Your task to perform on an android device: Go to Reddit.com Image 0: 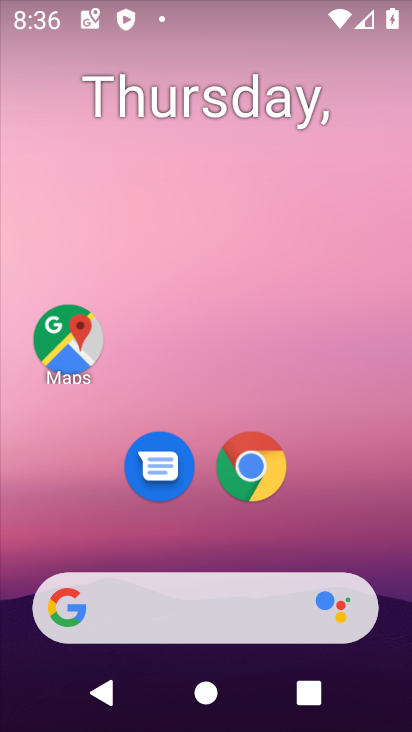
Step 0: click (261, 608)
Your task to perform on an android device: Go to Reddit.com Image 1: 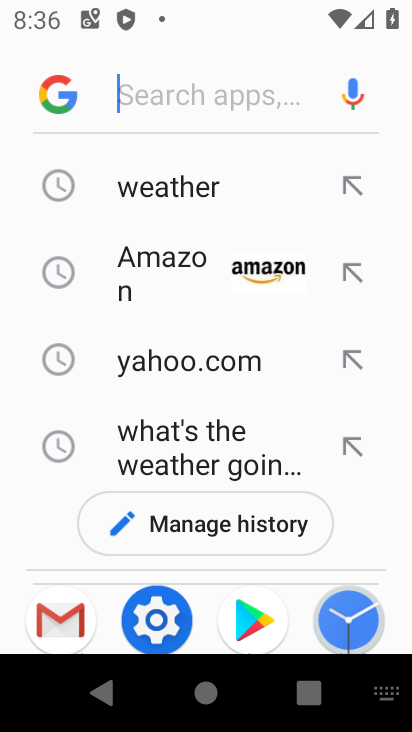
Step 1: type " Reddit.com"
Your task to perform on an android device: Go to Reddit.com Image 2: 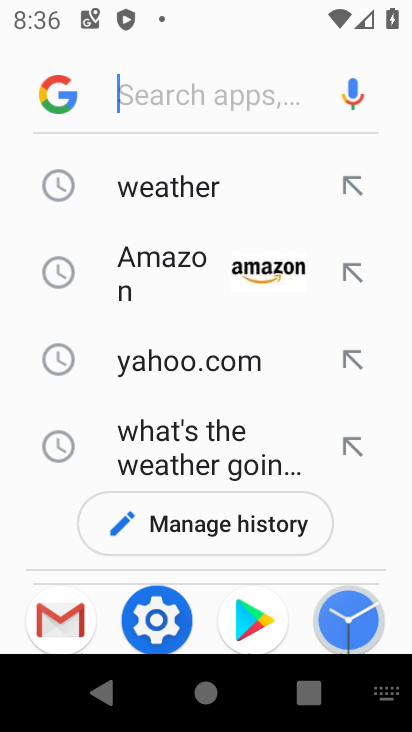
Step 2: click (218, 99)
Your task to perform on an android device: Go to Reddit.com Image 3: 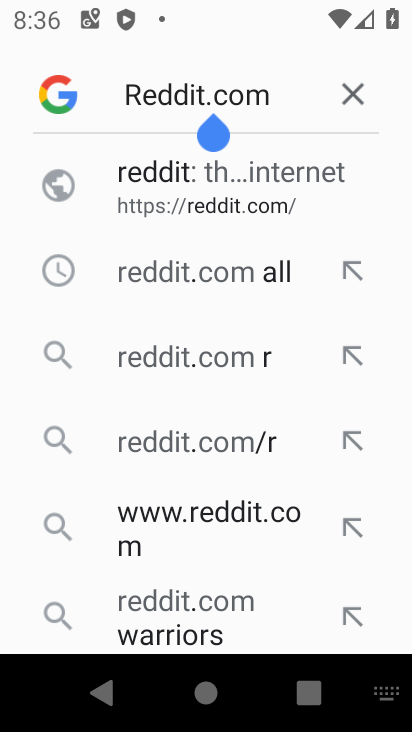
Step 3: click (147, 199)
Your task to perform on an android device: Go to Reddit.com Image 4: 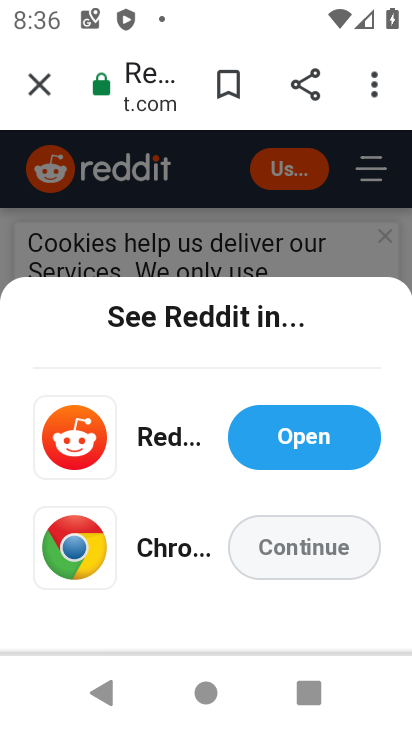
Step 4: task complete